Your task to perform on an android device: Open the calendar app, open the side menu, and click the "Day" option Image 0: 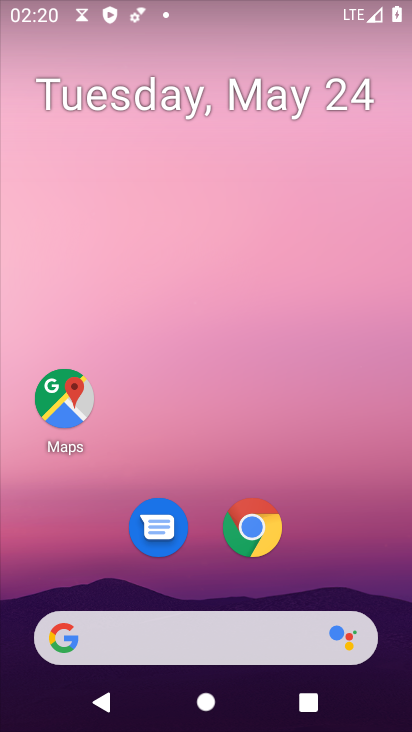
Step 0: press home button
Your task to perform on an android device: Open the calendar app, open the side menu, and click the "Day" option Image 1: 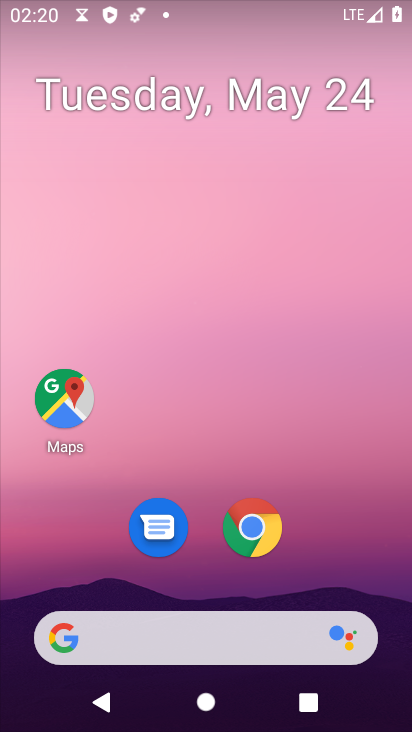
Step 1: drag from (201, 648) to (280, 116)
Your task to perform on an android device: Open the calendar app, open the side menu, and click the "Day" option Image 2: 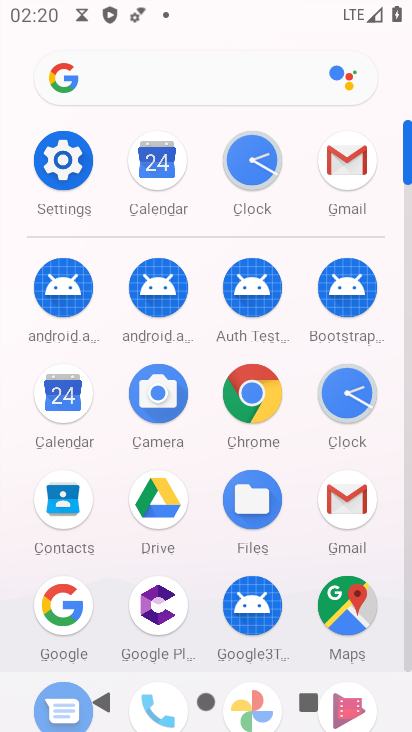
Step 2: click (63, 394)
Your task to perform on an android device: Open the calendar app, open the side menu, and click the "Day" option Image 3: 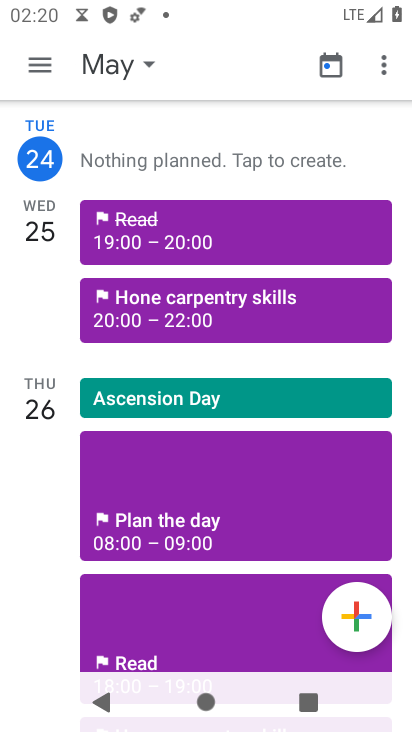
Step 3: click (45, 62)
Your task to perform on an android device: Open the calendar app, open the side menu, and click the "Day" option Image 4: 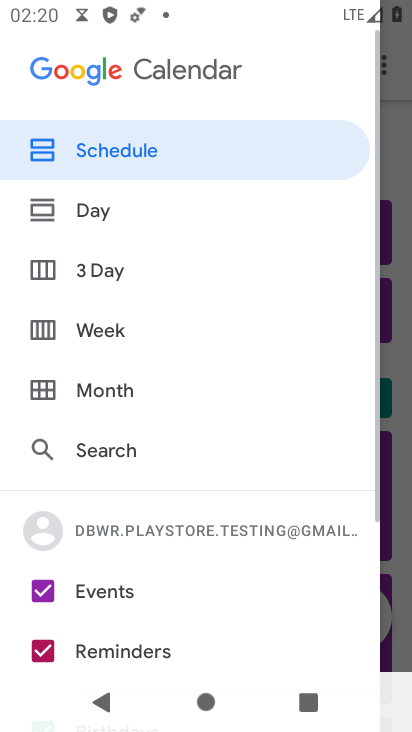
Step 4: click (95, 213)
Your task to perform on an android device: Open the calendar app, open the side menu, and click the "Day" option Image 5: 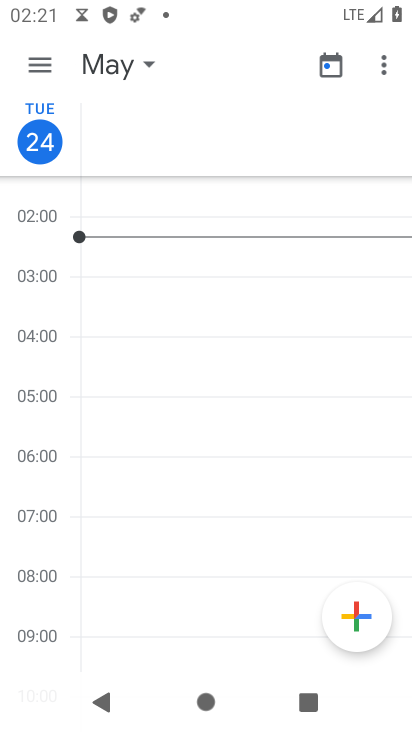
Step 5: task complete